Your task to perform on an android device: turn off priority inbox in the gmail app Image 0: 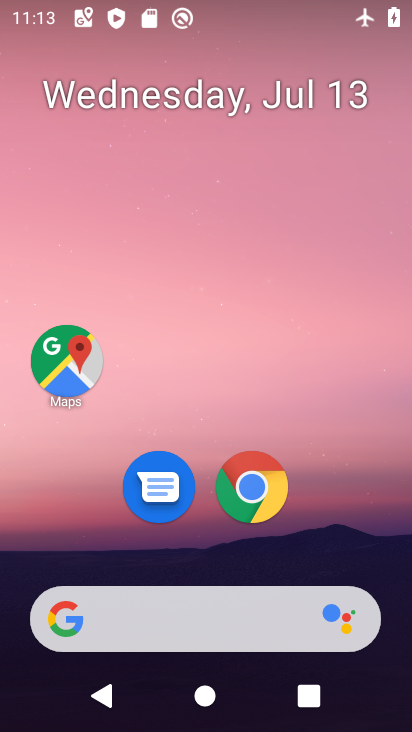
Step 0: drag from (205, 553) to (122, 47)
Your task to perform on an android device: turn off priority inbox in the gmail app Image 1: 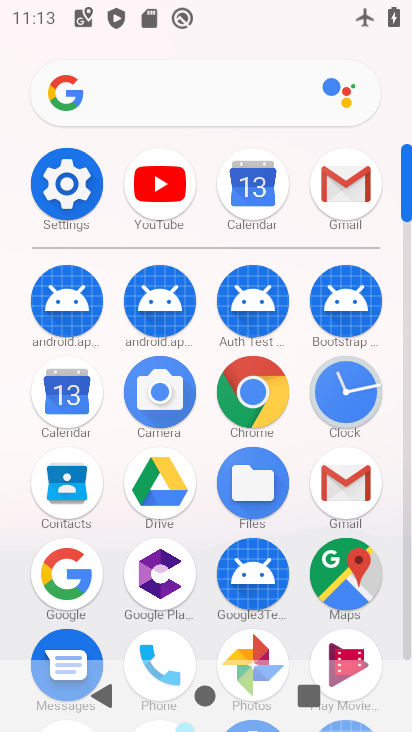
Step 1: click (326, 488)
Your task to perform on an android device: turn off priority inbox in the gmail app Image 2: 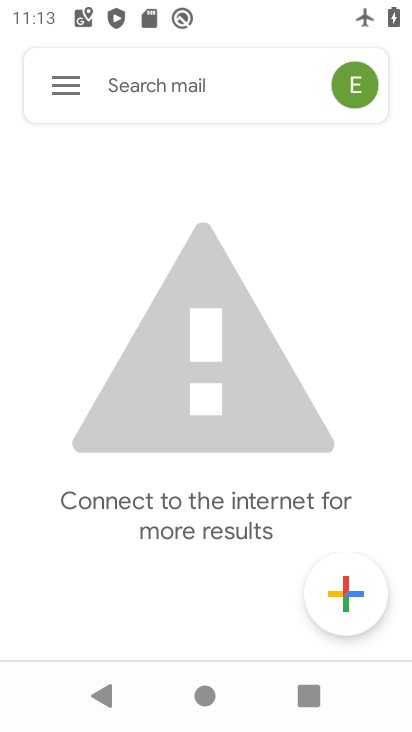
Step 2: click (57, 104)
Your task to perform on an android device: turn off priority inbox in the gmail app Image 3: 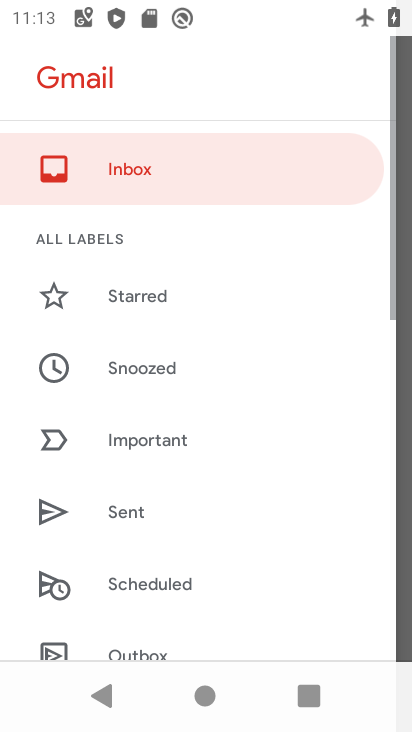
Step 3: drag from (162, 389) to (104, 73)
Your task to perform on an android device: turn off priority inbox in the gmail app Image 4: 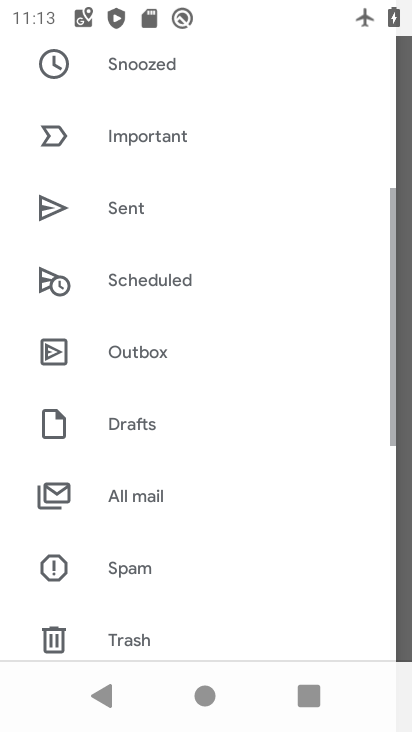
Step 4: drag from (157, 487) to (107, 211)
Your task to perform on an android device: turn off priority inbox in the gmail app Image 5: 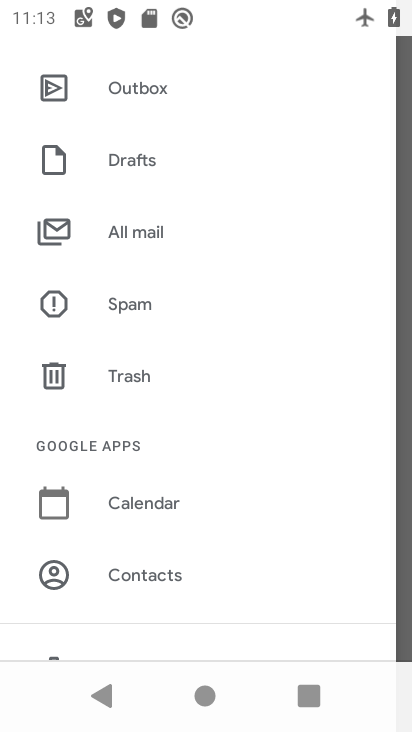
Step 5: drag from (194, 514) to (132, 252)
Your task to perform on an android device: turn off priority inbox in the gmail app Image 6: 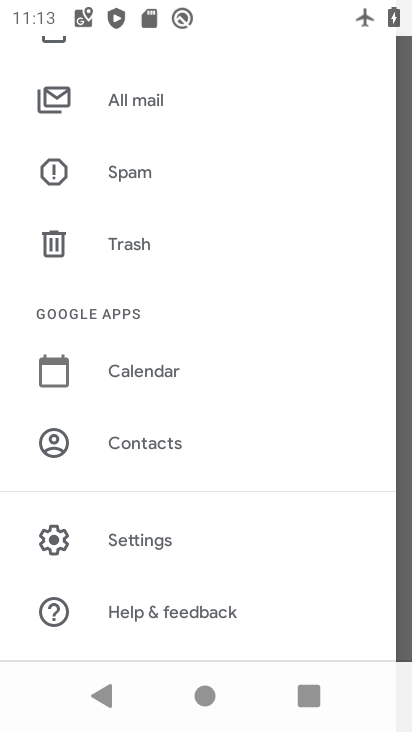
Step 6: click (178, 546)
Your task to perform on an android device: turn off priority inbox in the gmail app Image 7: 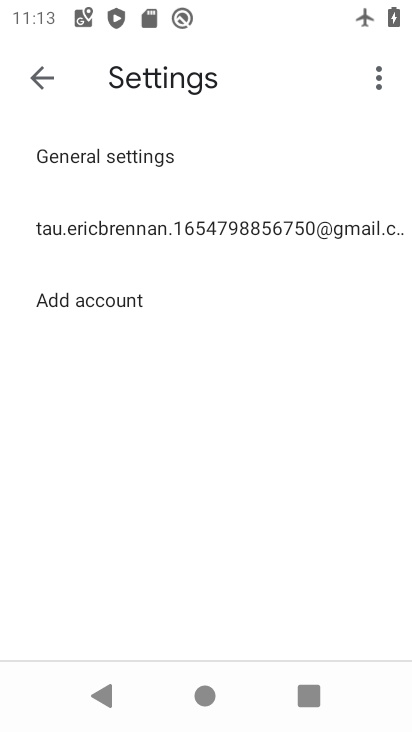
Step 7: click (93, 237)
Your task to perform on an android device: turn off priority inbox in the gmail app Image 8: 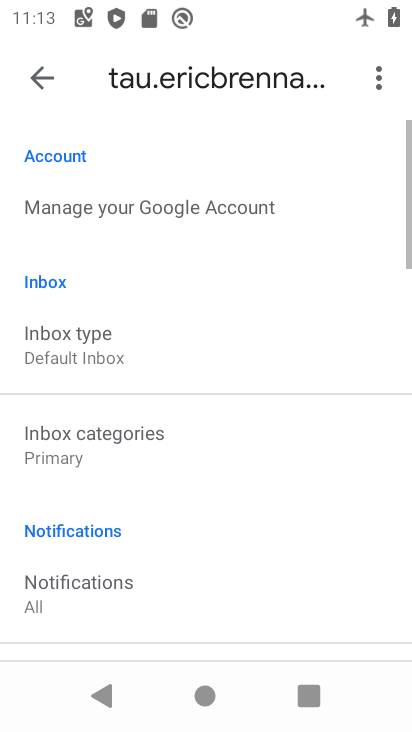
Step 8: click (89, 338)
Your task to perform on an android device: turn off priority inbox in the gmail app Image 9: 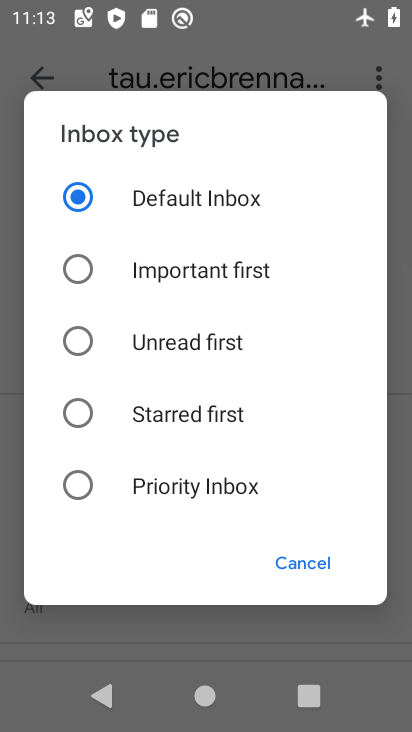
Step 9: task complete